Your task to perform on an android device: Open wifi settings Image 0: 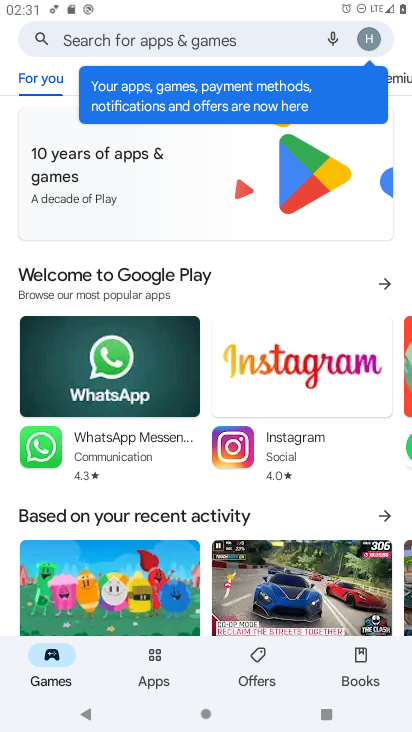
Step 0: drag from (336, 3) to (273, 323)
Your task to perform on an android device: Open wifi settings Image 1: 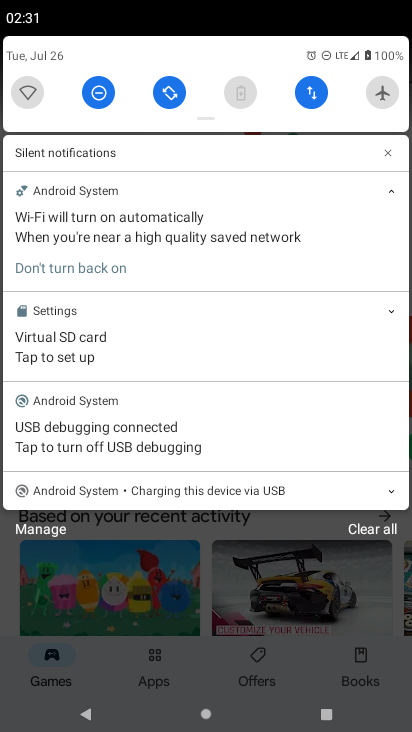
Step 1: drag from (42, 88) to (89, 4)
Your task to perform on an android device: Open wifi settings Image 2: 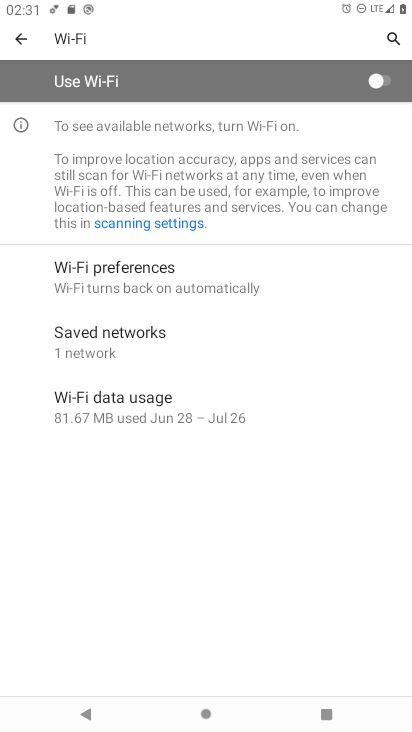
Step 2: click (12, 30)
Your task to perform on an android device: Open wifi settings Image 3: 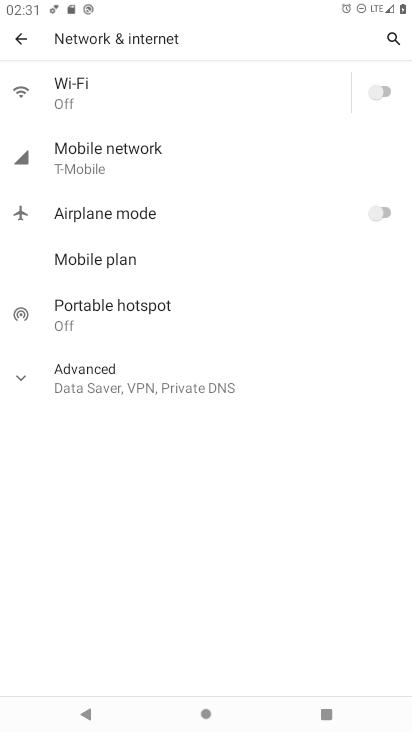
Step 3: click (196, 97)
Your task to perform on an android device: Open wifi settings Image 4: 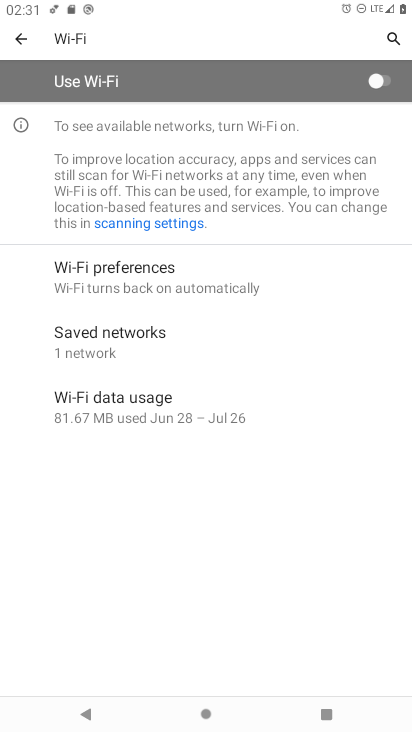
Step 4: task complete